Your task to perform on an android device: What's the weather like in Rio de Janeiro? Image 0: 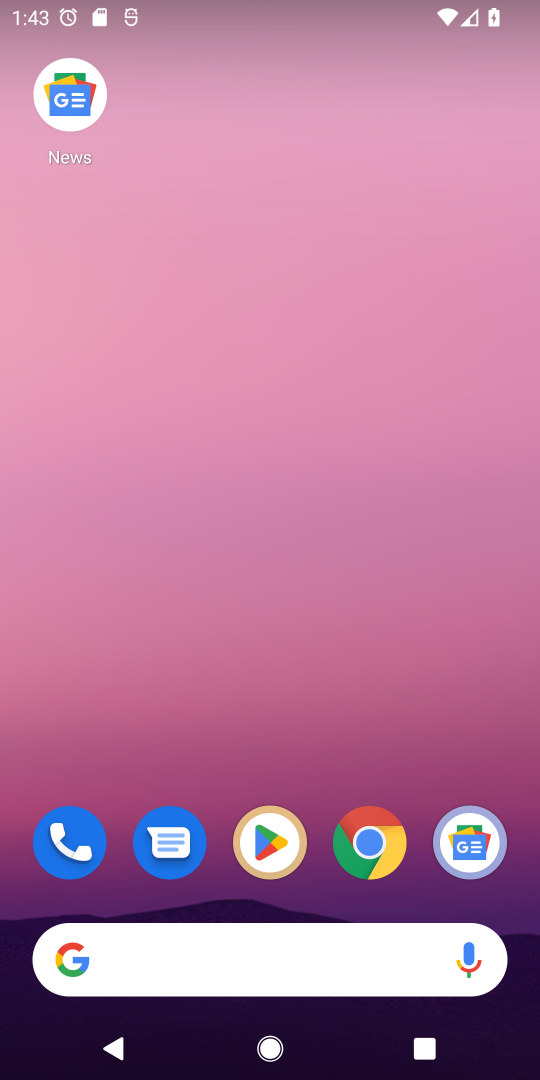
Step 0: click (373, 850)
Your task to perform on an android device: What's the weather like in Rio de Janeiro? Image 1: 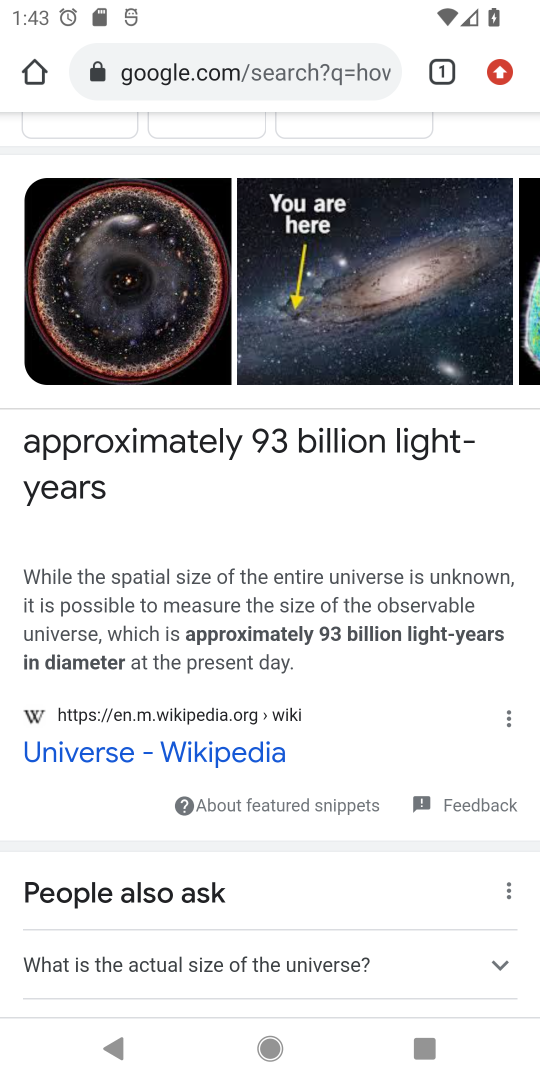
Step 1: click (195, 63)
Your task to perform on an android device: What's the weather like in Rio de Janeiro? Image 2: 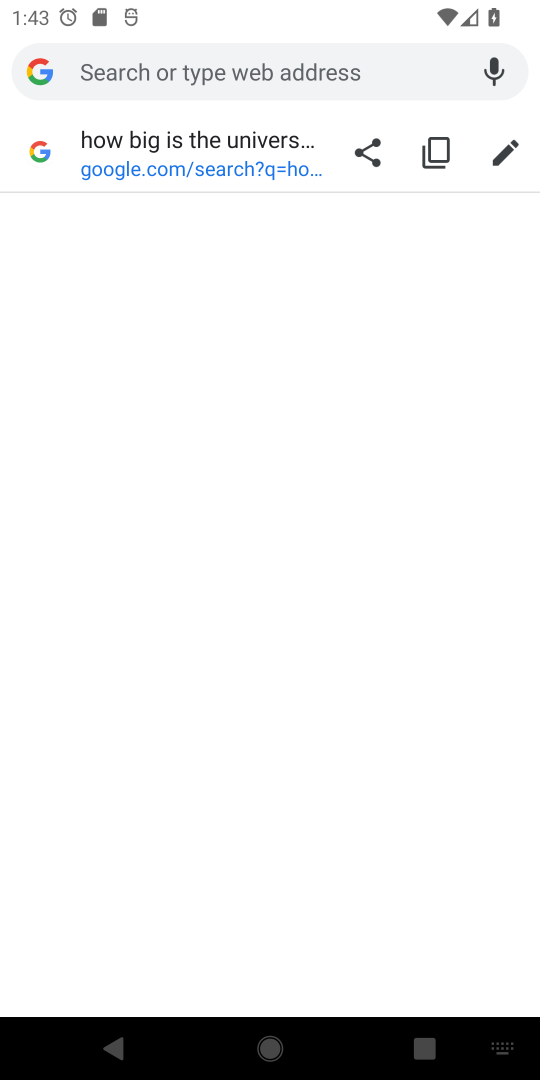
Step 2: type "weather in rio de janeiro"
Your task to perform on an android device: What's the weather like in Rio de Janeiro? Image 3: 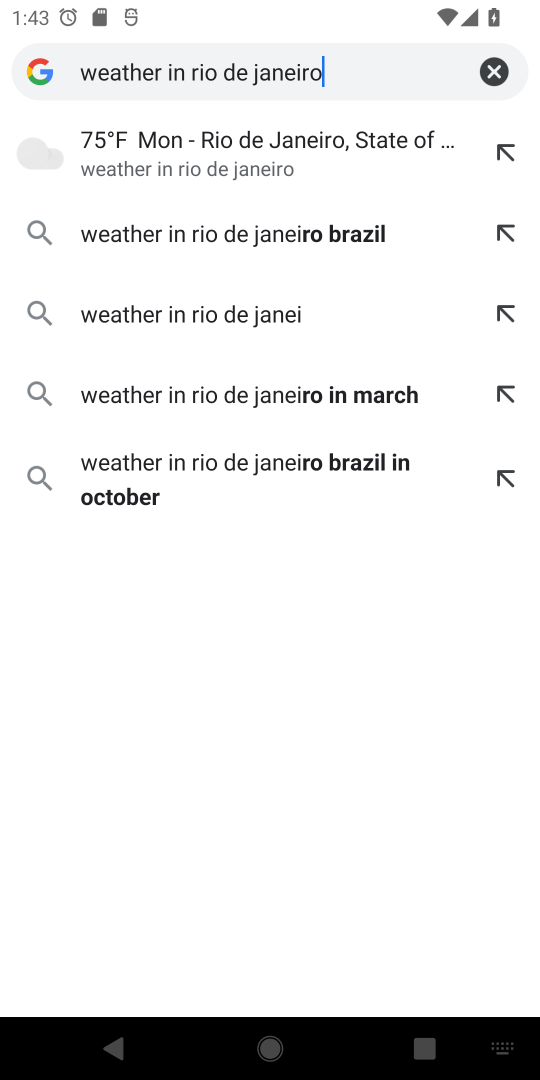
Step 3: type ""
Your task to perform on an android device: What's the weather like in Rio de Janeiro? Image 4: 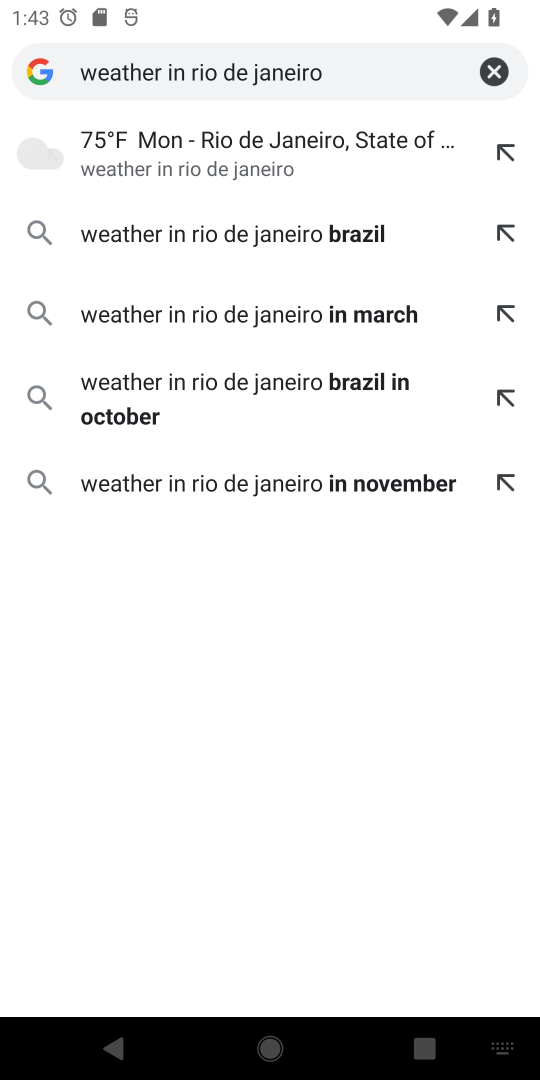
Step 4: press enter
Your task to perform on an android device: What's the weather like in Rio de Janeiro? Image 5: 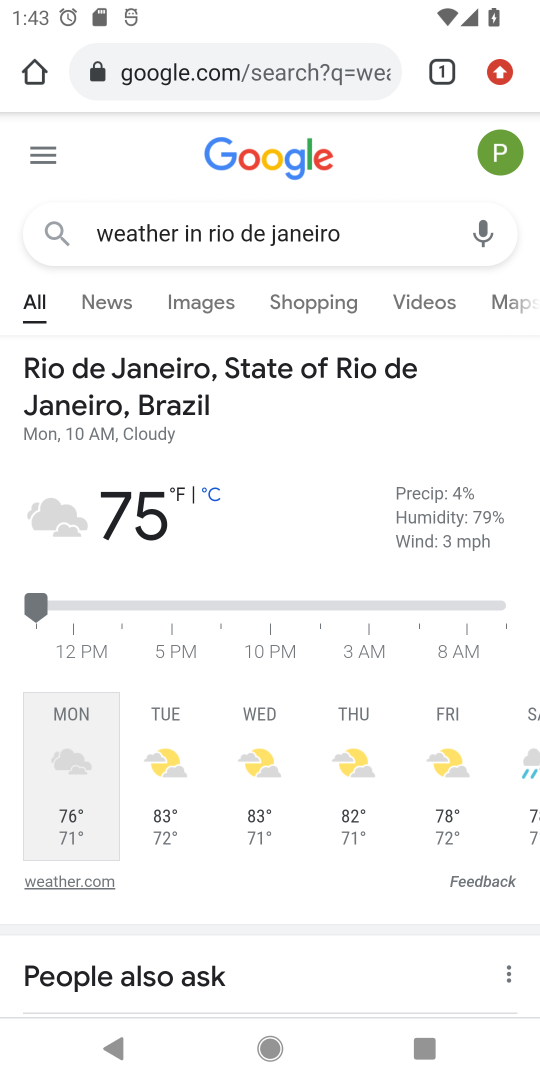
Step 5: task complete